Your task to perform on an android device: turn vacation reply on in the gmail app Image 0: 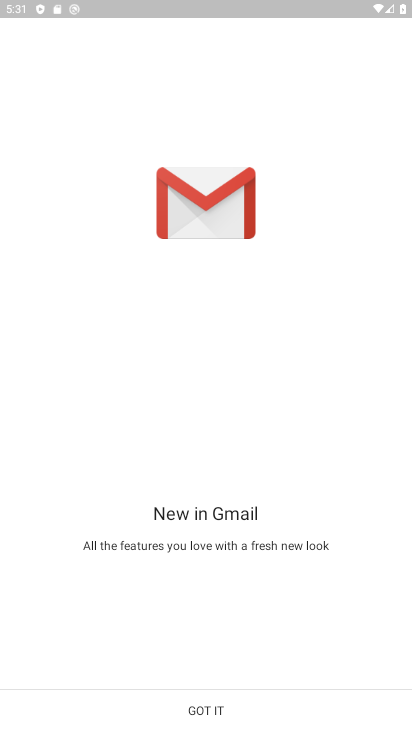
Step 0: click (232, 700)
Your task to perform on an android device: turn vacation reply on in the gmail app Image 1: 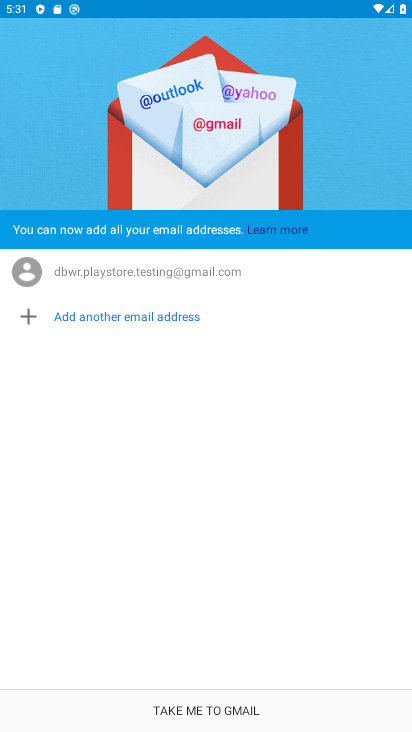
Step 1: click (231, 706)
Your task to perform on an android device: turn vacation reply on in the gmail app Image 2: 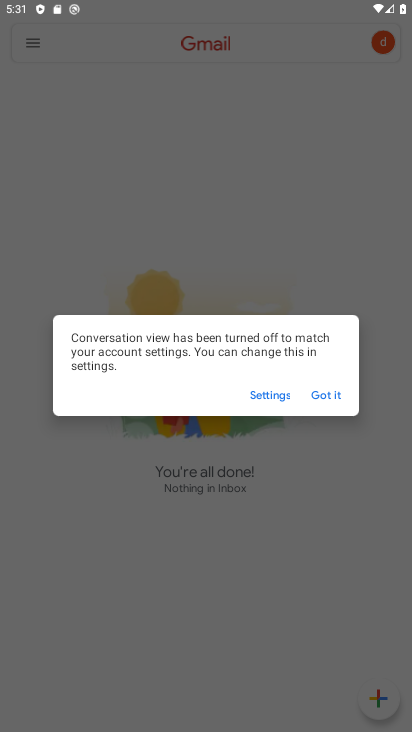
Step 2: click (318, 399)
Your task to perform on an android device: turn vacation reply on in the gmail app Image 3: 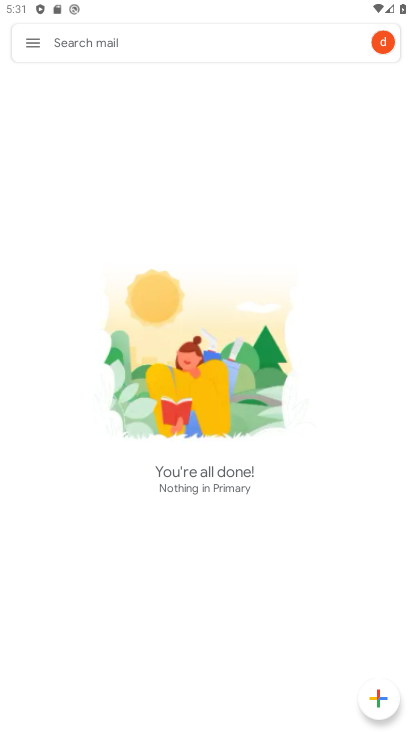
Step 3: click (36, 43)
Your task to perform on an android device: turn vacation reply on in the gmail app Image 4: 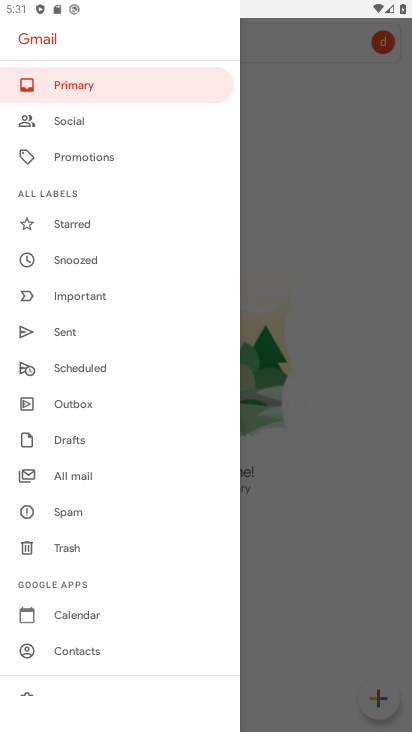
Step 4: drag from (104, 654) to (100, 355)
Your task to perform on an android device: turn vacation reply on in the gmail app Image 5: 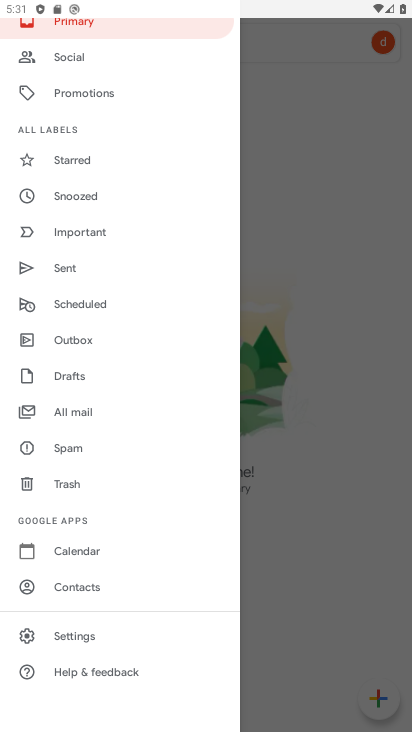
Step 5: click (112, 630)
Your task to perform on an android device: turn vacation reply on in the gmail app Image 6: 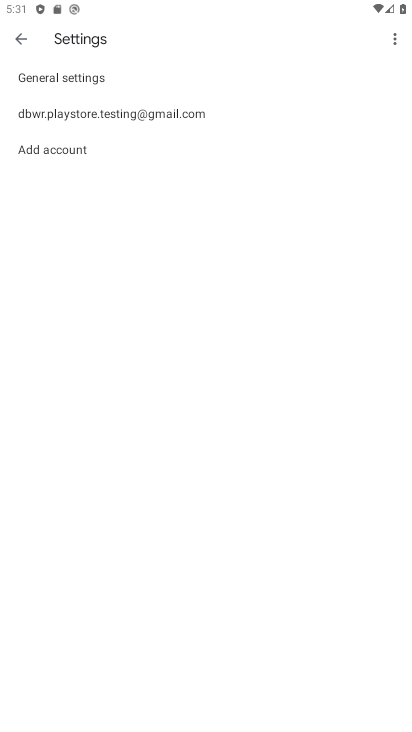
Step 6: click (123, 109)
Your task to perform on an android device: turn vacation reply on in the gmail app Image 7: 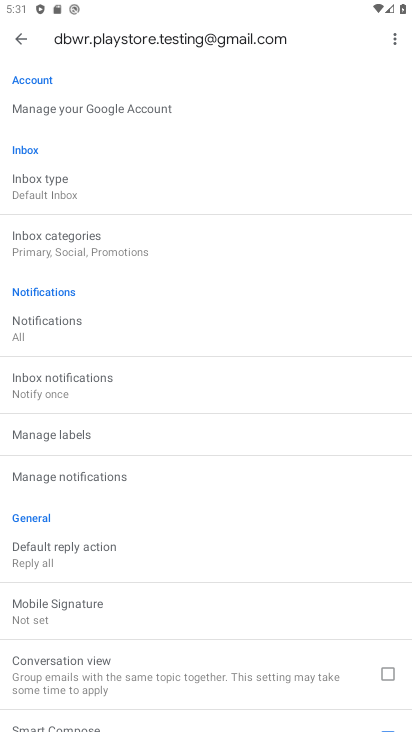
Step 7: drag from (218, 638) to (215, 158)
Your task to perform on an android device: turn vacation reply on in the gmail app Image 8: 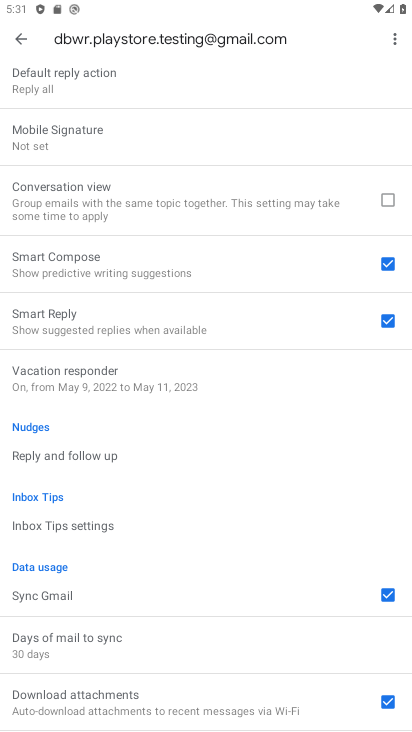
Step 8: click (150, 372)
Your task to perform on an android device: turn vacation reply on in the gmail app Image 9: 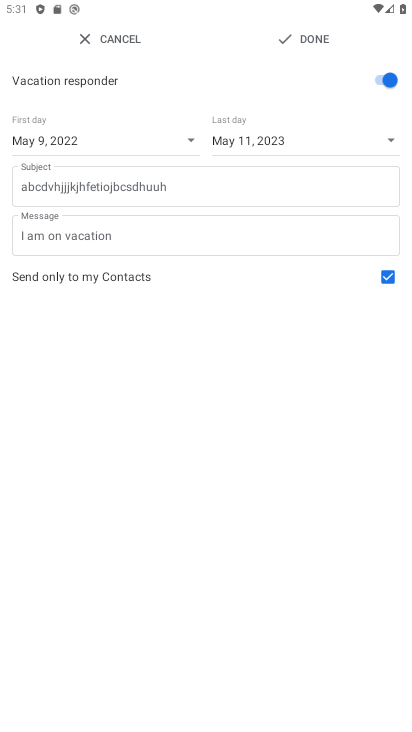
Step 9: click (300, 33)
Your task to perform on an android device: turn vacation reply on in the gmail app Image 10: 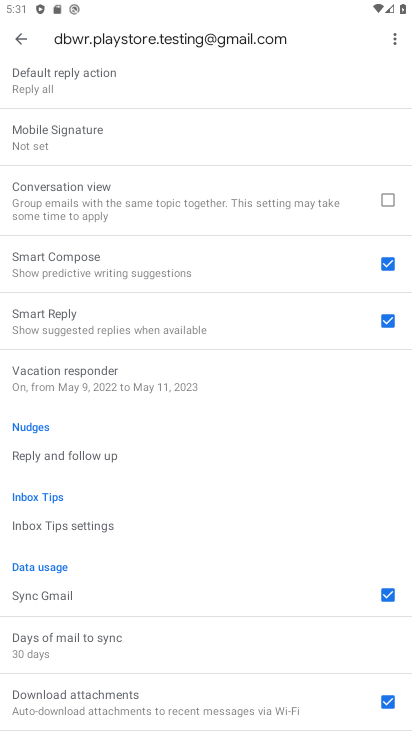
Step 10: task complete